Your task to perform on an android device: open sync settings in chrome Image 0: 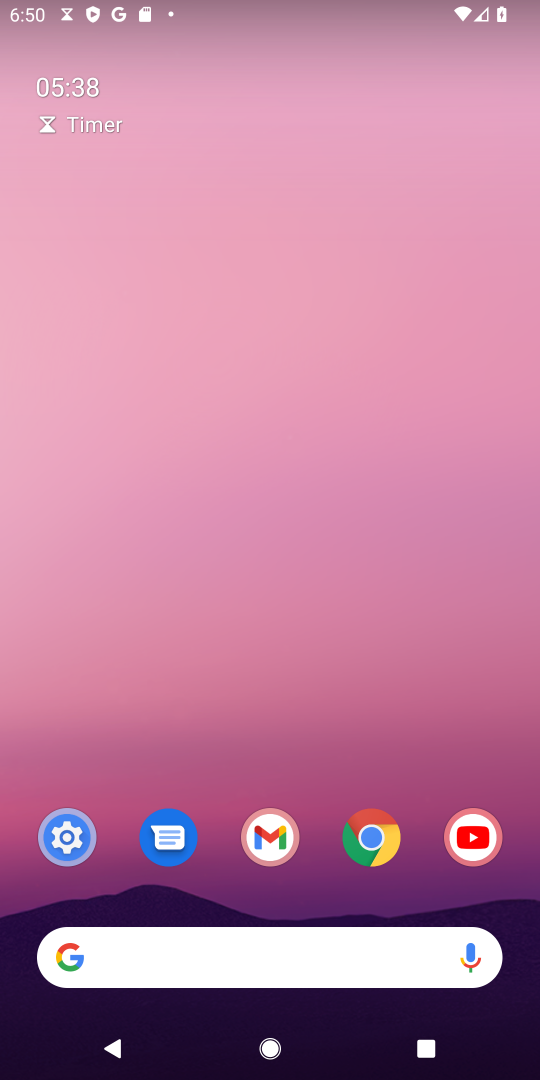
Step 0: press home button
Your task to perform on an android device: open sync settings in chrome Image 1: 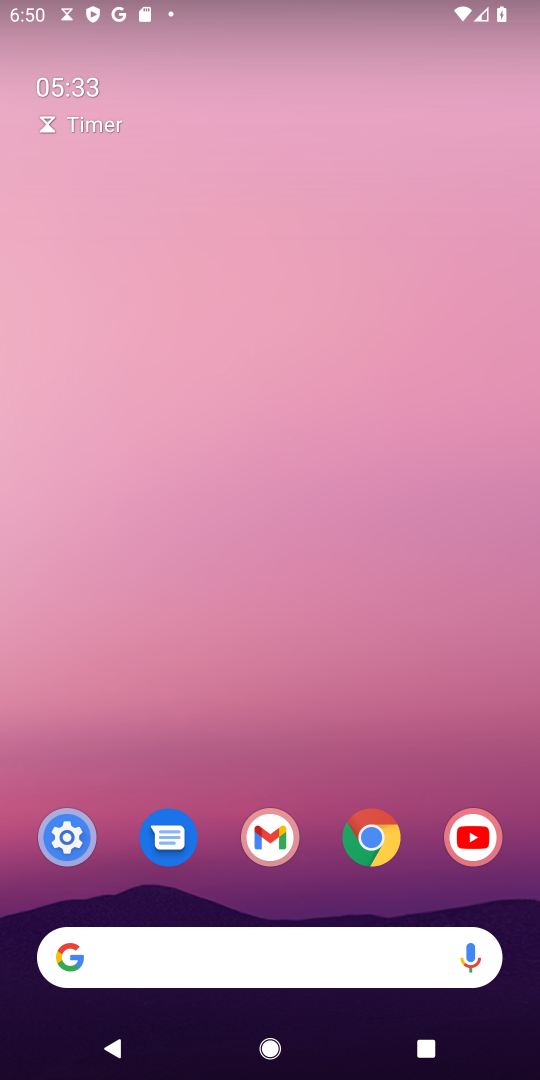
Step 1: click (369, 827)
Your task to perform on an android device: open sync settings in chrome Image 2: 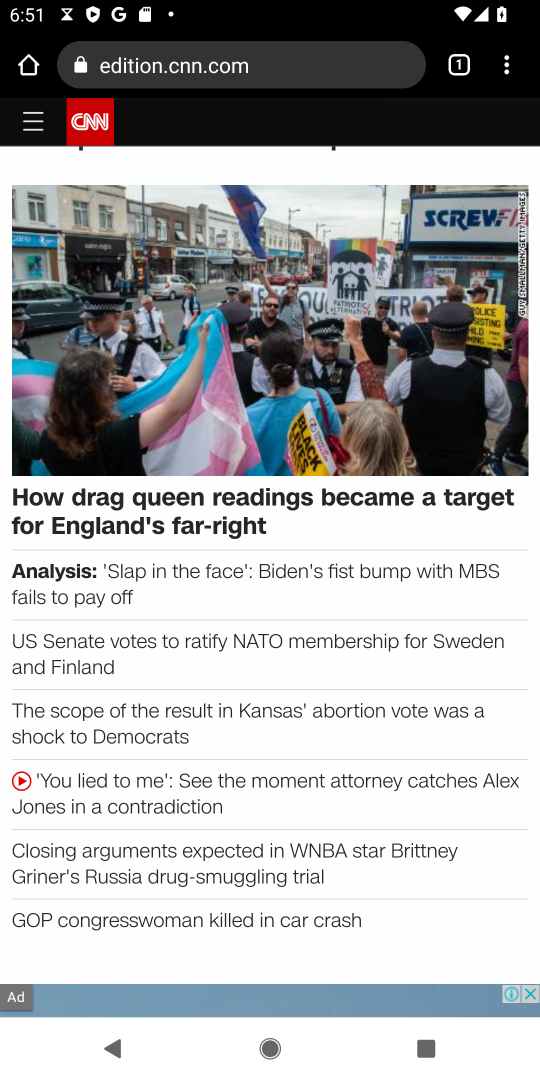
Step 2: click (507, 69)
Your task to perform on an android device: open sync settings in chrome Image 3: 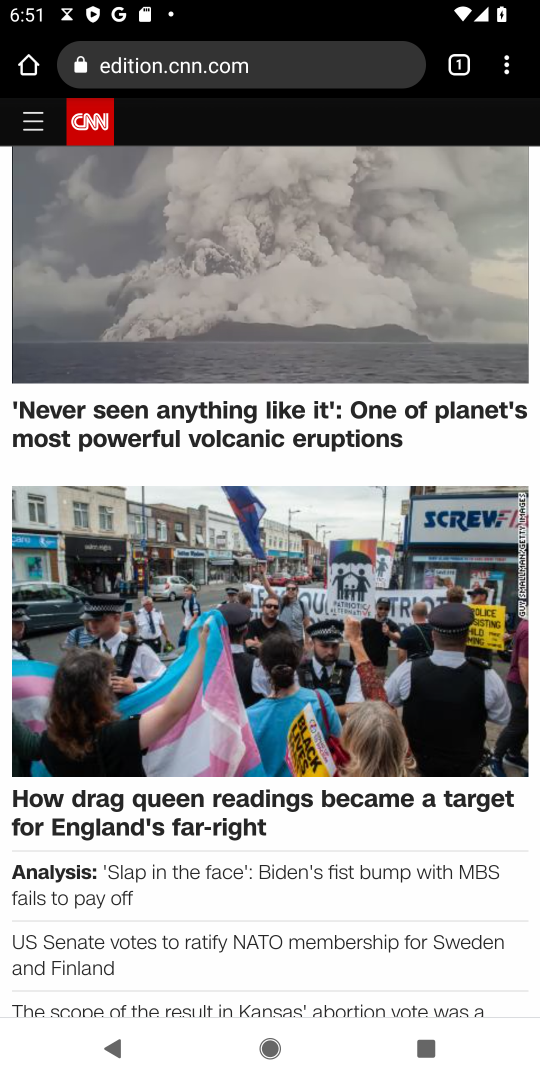
Step 3: click (511, 66)
Your task to perform on an android device: open sync settings in chrome Image 4: 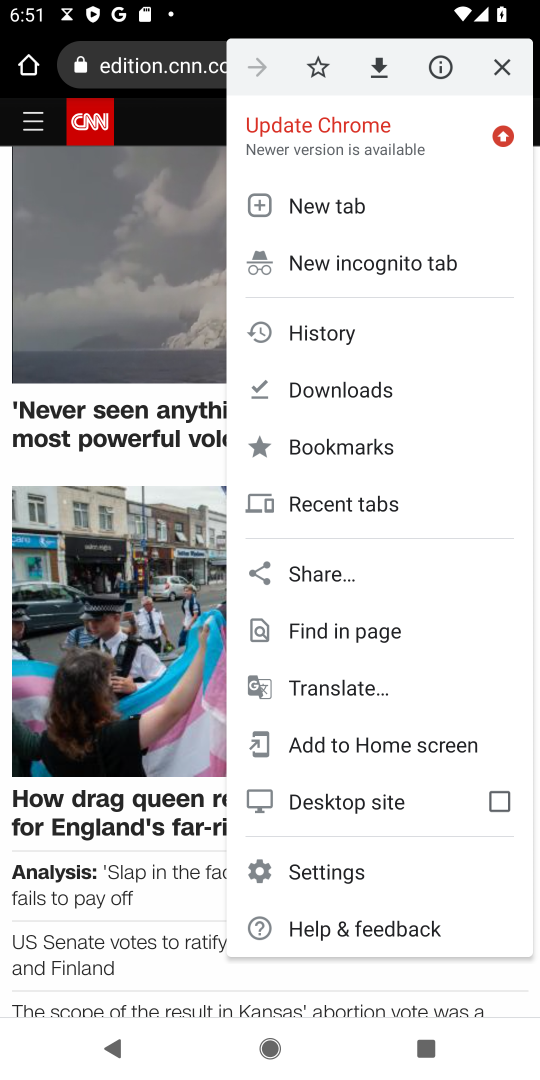
Step 4: click (370, 868)
Your task to perform on an android device: open sync settings in chrome Image 5: 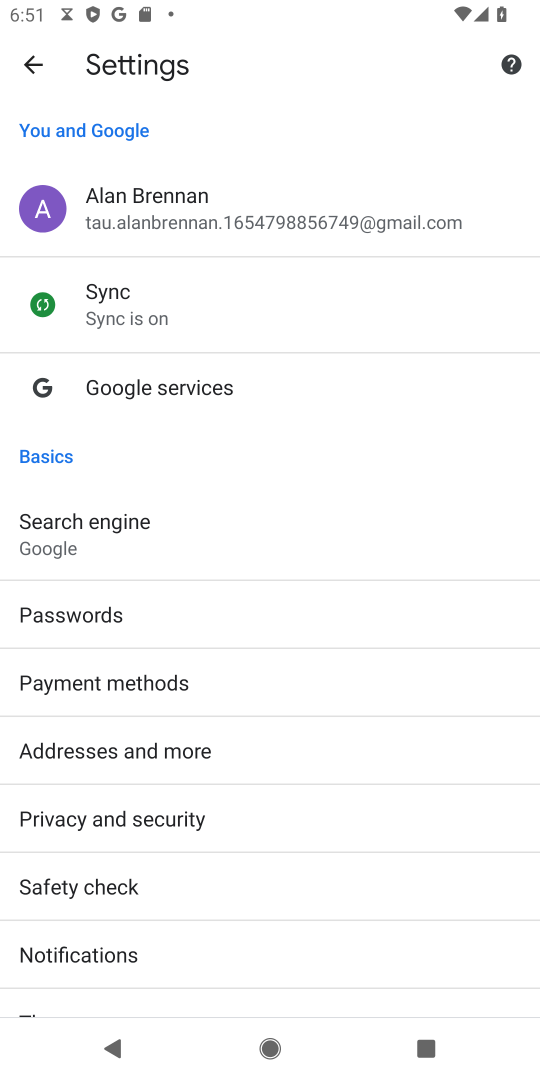
Step 5: click (158, 308)
Your task to perform on an android device: open sync settings in chrome Image 6: 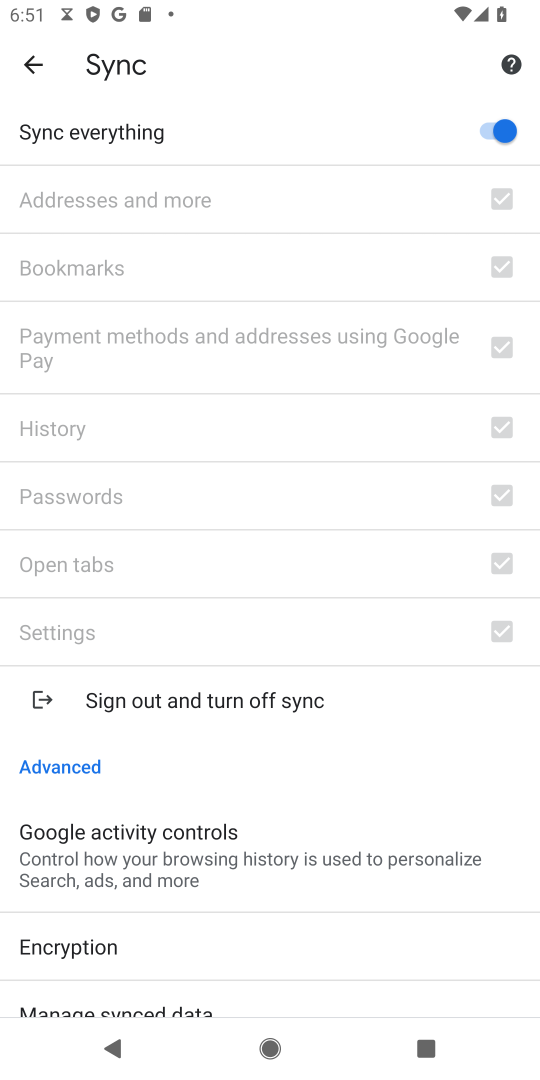
Step 6: task complete